Your task to perform on an android device: allow notifications from all sites in the chrome app Image 0: 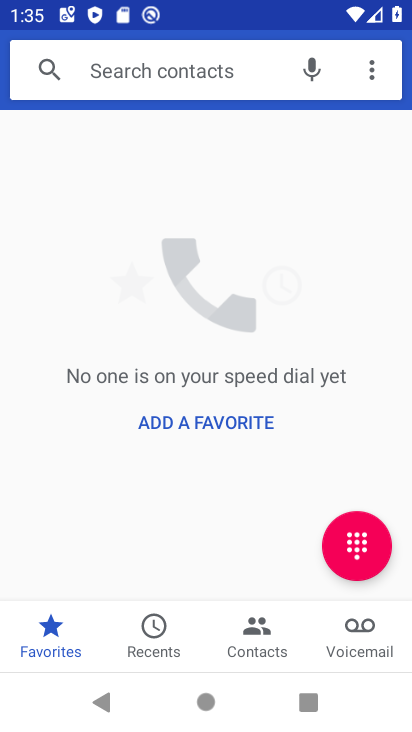
Step 0: press home button
Your task to perform on an android device: allow notifications from all sites in the chrome app Image 1: 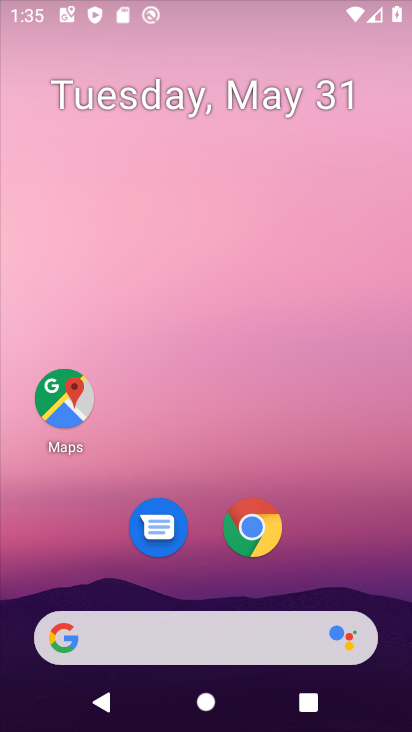
Step 1: drag from (352, 580) to (368, 113)
Your task to perform on an android device: allow notifications from all sites in the chrome app Image 2: 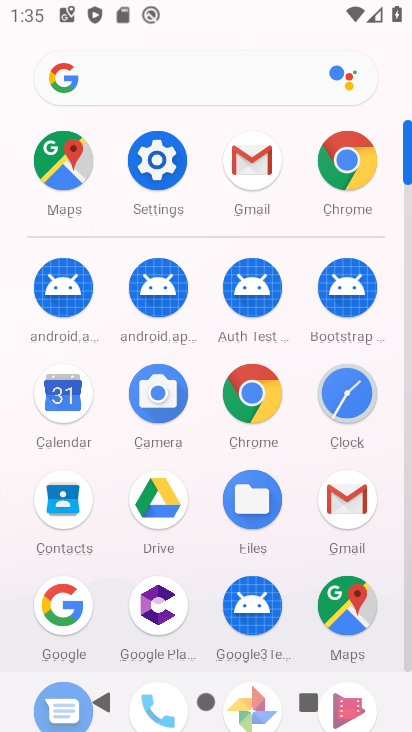
Step 2: click (354, 141)
Your task to perform on an android device: allow notifications from all sites in the chrome app Image 3: 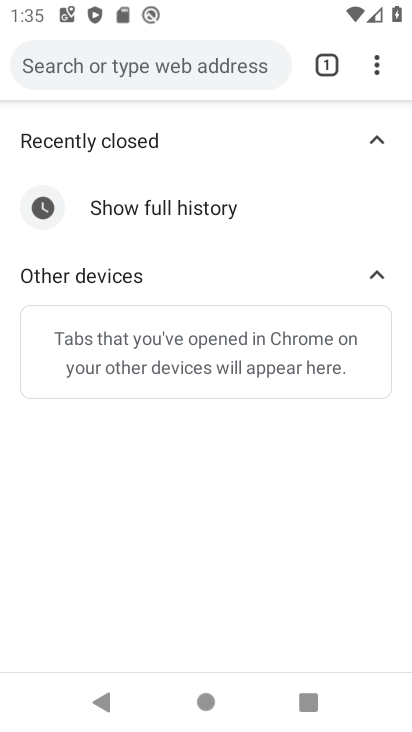
Step 3: drag from (375, 71) to (154, 534)
Your task to perform on an android device: allow notifications from all sites in the chrome app Image 4: 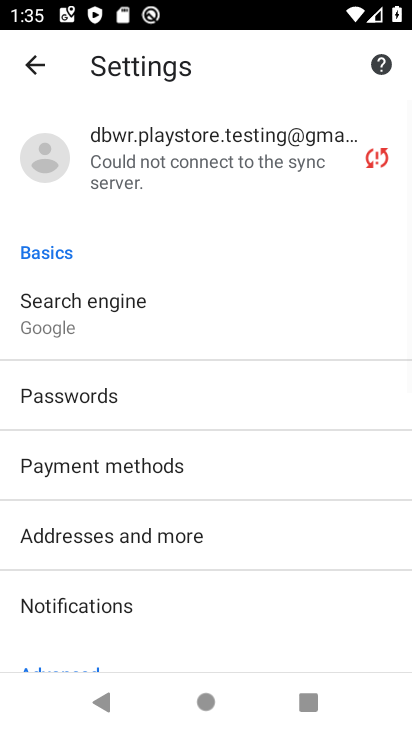
Step 4: drag from (182, 585) to (271, 191)
Your task to perform on an android device: allow notifications from all sites in the chrome app Image 5: 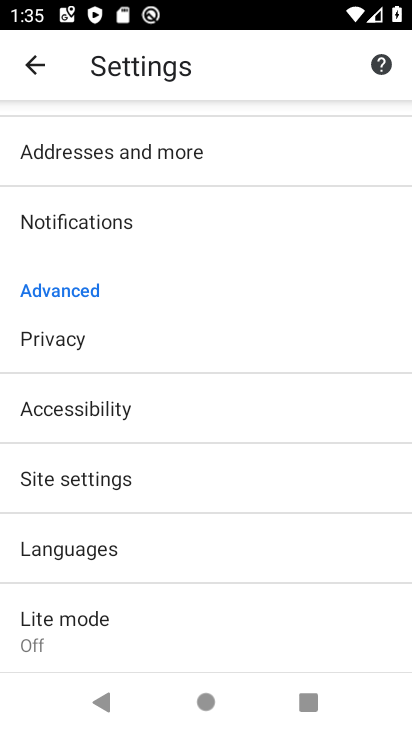
Step 5: click (149, 491)
Your task to perform on an android device: allow notifications from all sites in the chrome app Image 6: 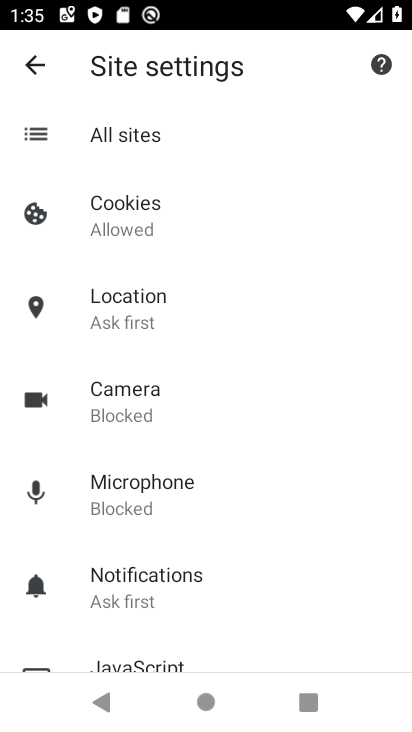
Step 6: click (147, 595)
Your task to perform on an android device: allow notifications from all sites in the chrome app Image 7: 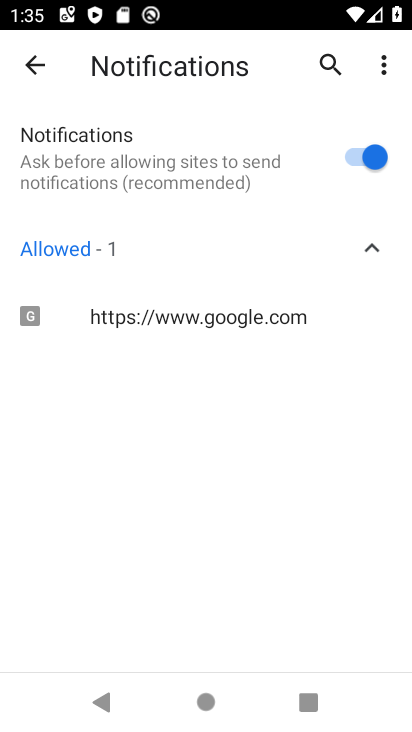
Step 7: task complete